Your task to perform on an android device: turn off data saver in the chrome app Image 0: 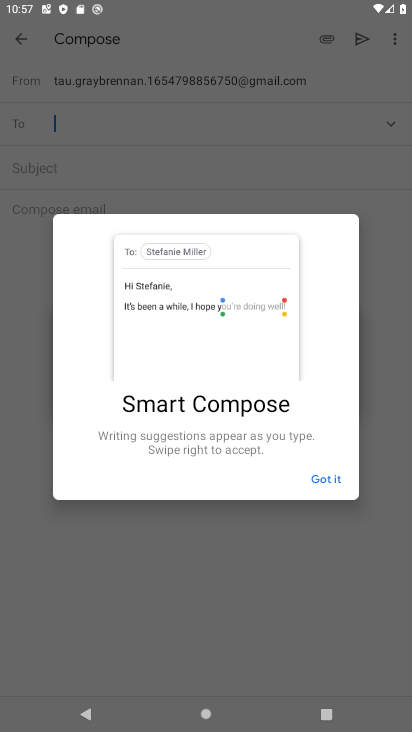
Step 0: press home button
Your task to perform on an android device: turn off data saver in the chrome app Image 1: 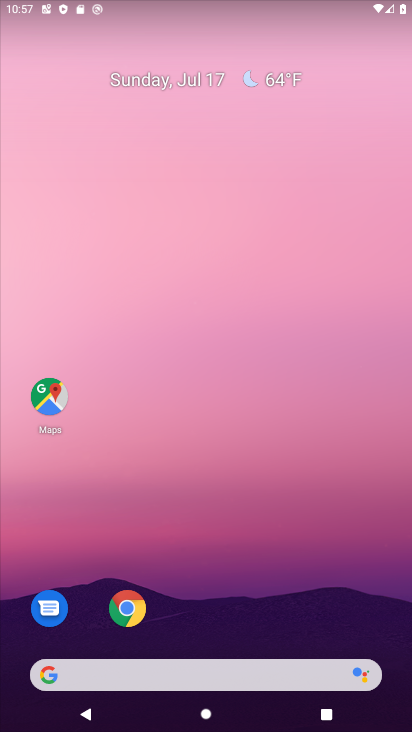
Step 1: drag from (316, 624) to (284, 87)
Your task to perform on an android device: turn off data saver in the chrome app Image 2: 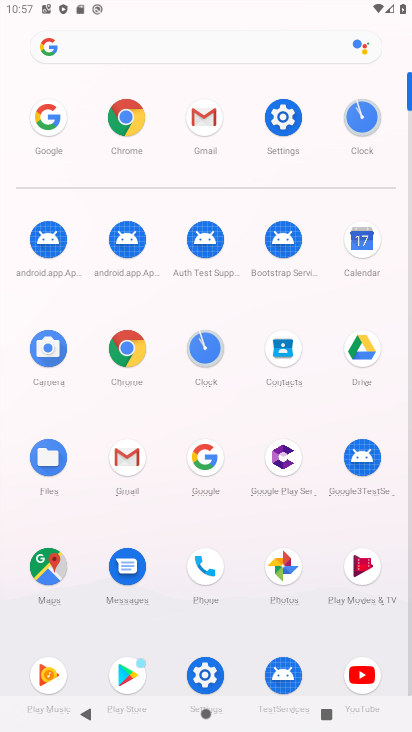
Step 2: click (133, 368)
Your task to perform on an android device: turn off data saver in the chrome app Image 3: 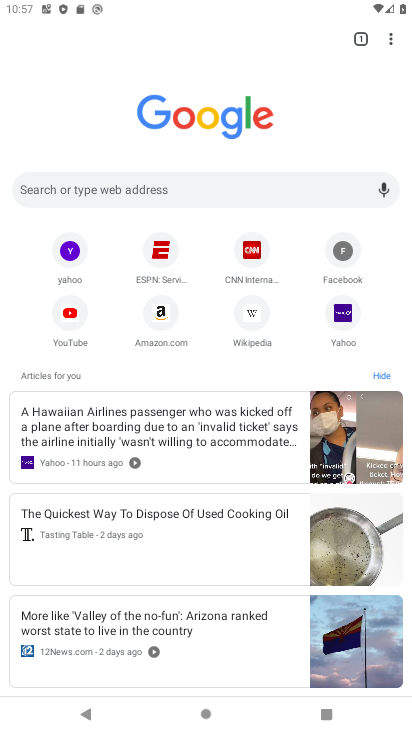
Step 3: click (391, 27)
Your task to perform on an android device: turn off data saver in the chrome app Image 4: 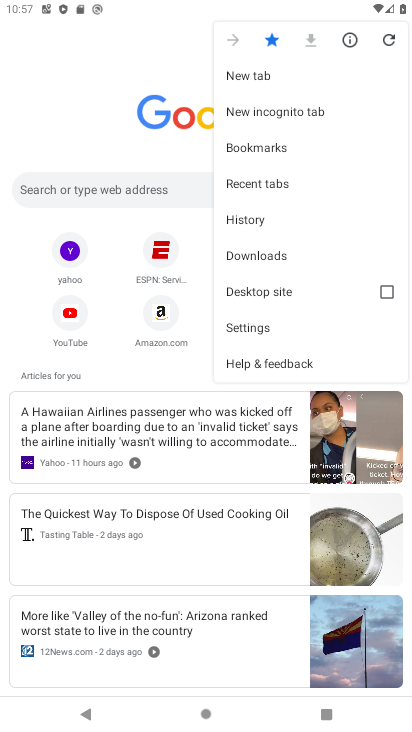
Step 4: click (269, 324)
Your task to perform on an android device: turn off data saver in the chrome app Image 5: 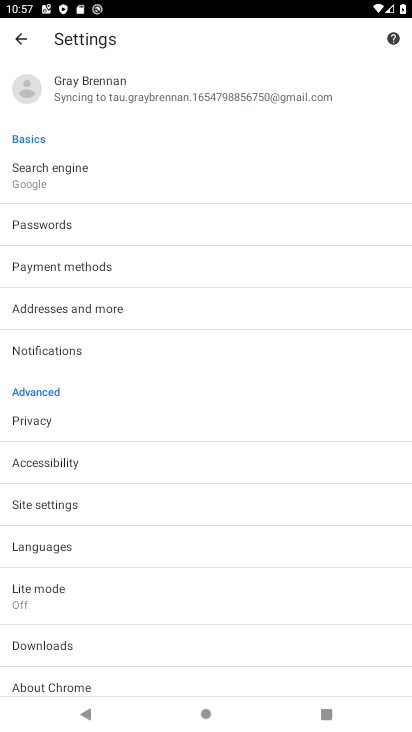
Step 5: click (89, 599)
Your task to perform on an android device: turn off data saver in the chrome app Image 6: 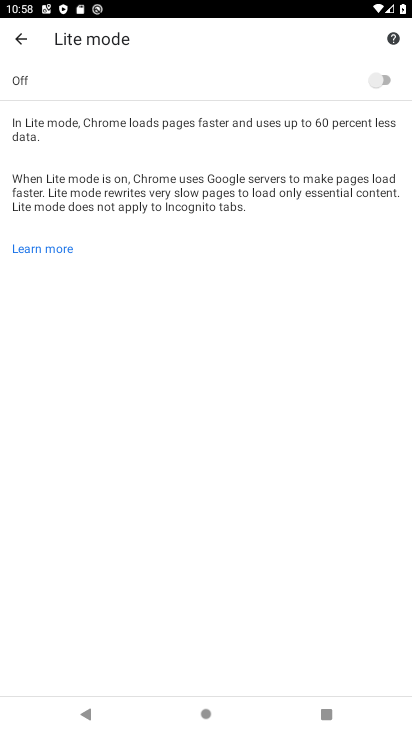
Step 6: click (364, 77)
Your task to perform on an android device: turn off data saver in the chrome app Image 7: 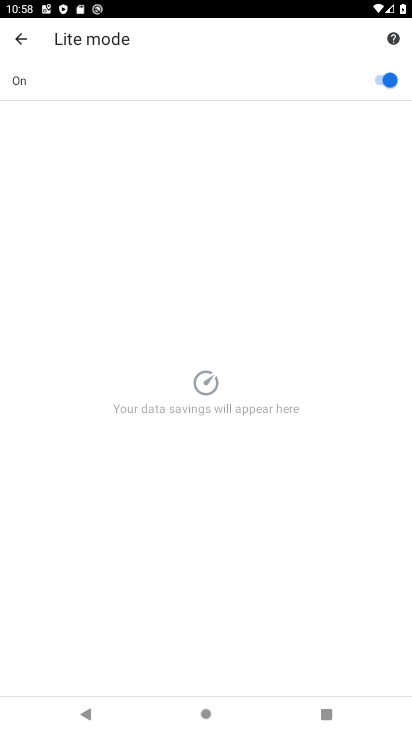
Step 7: click (364, 77)
Your task to perform on an android device: turn off data saver in the chrome app Image 8: 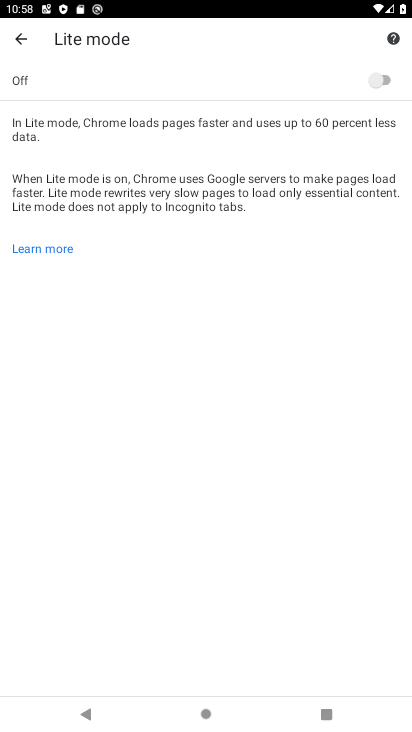
Step 8: task complete